Your task to perform on an android device: Show the shopping cart on newegg.com. Add "logitech g pro" to the cart on newegg.com, then select checkout. Image 0: 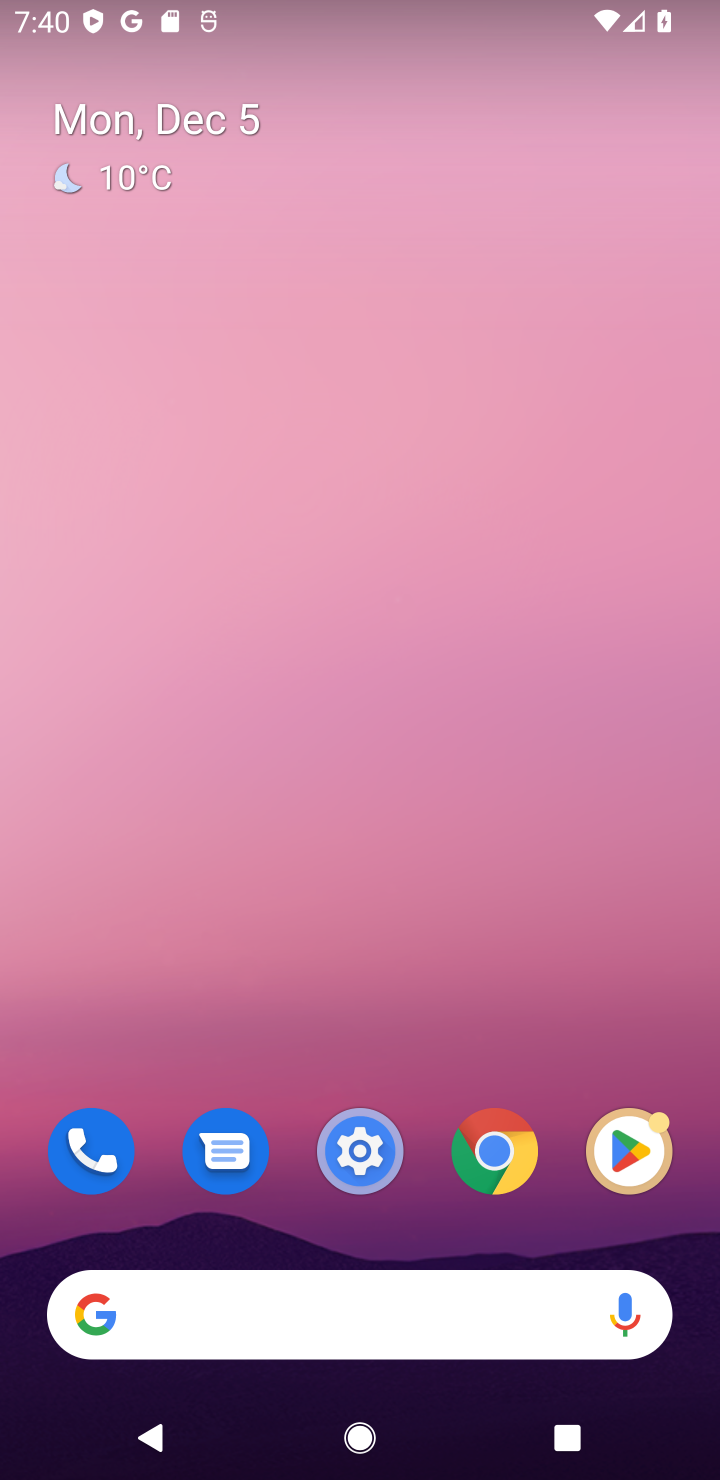
Step 0: click (409, 1311)
Your task to perform on an android device: Show the shopping cart on newegg.com. Add "logitech g pro" to the cart on newegg.com, then select checkout. Image 1: 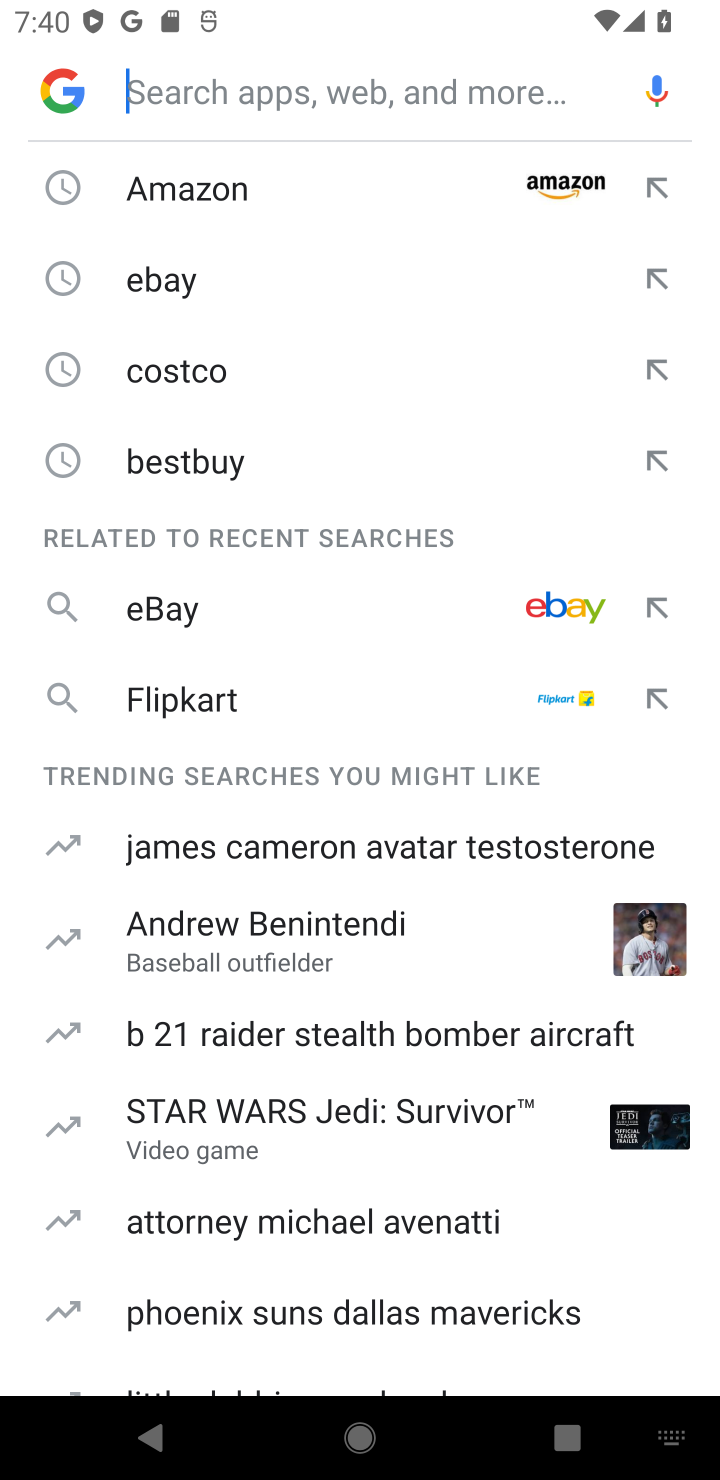
Step 1: type "newegg"
Your task to perform on an android device: Show the shopping cart on newegg.com. Add "logitech g pro" to the cart on newegg.com, then select checkout. Image 2: 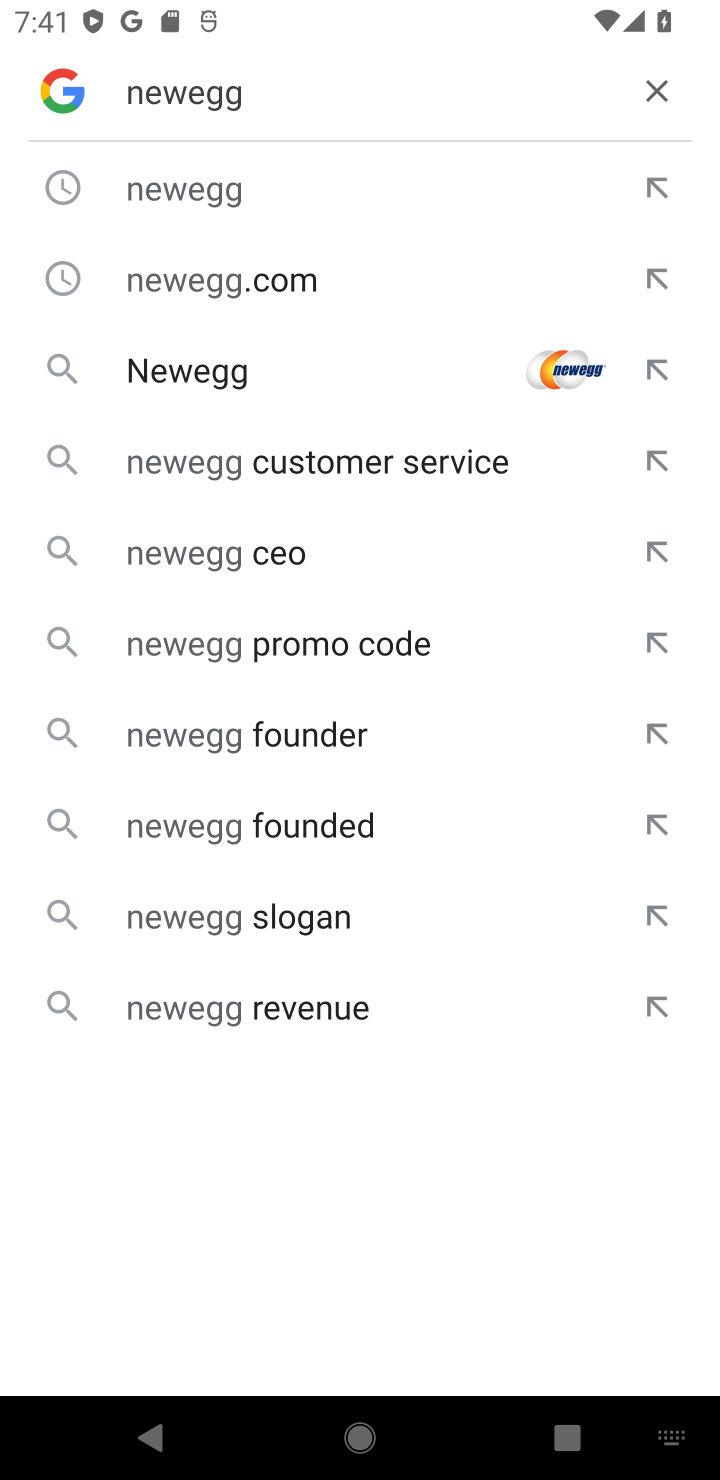
Step 2: click (236, 151)
Your task to perform on an android device: Show the shopping cart on newegg.com. Add "logitech g pro" to the cart on newegg.com, then select checkout. Image 3: 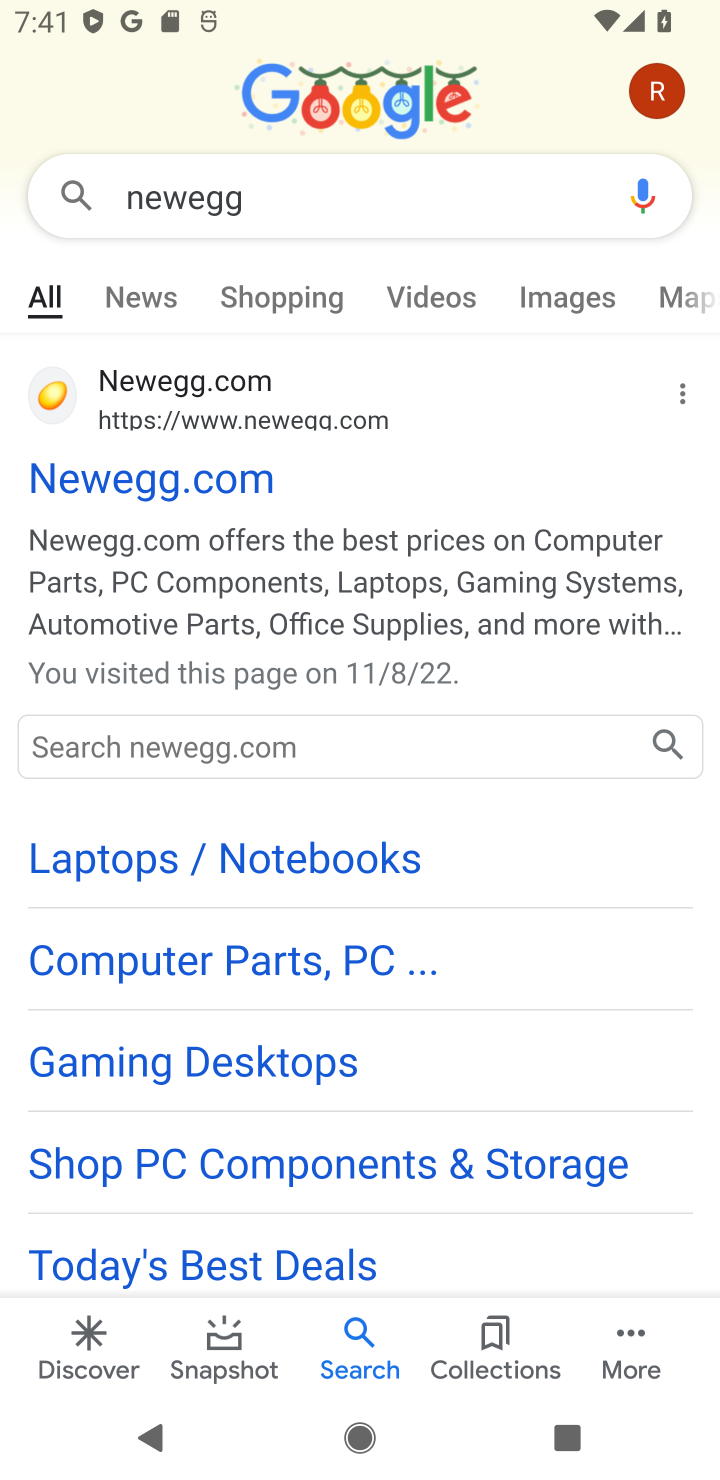
Step 3: click (124, 433)
Your task to perform on an android device: Show the shopping cart on newegg.com. Add "logitech g pro" to the cart on newegg.com, then select checkout. Image 4: 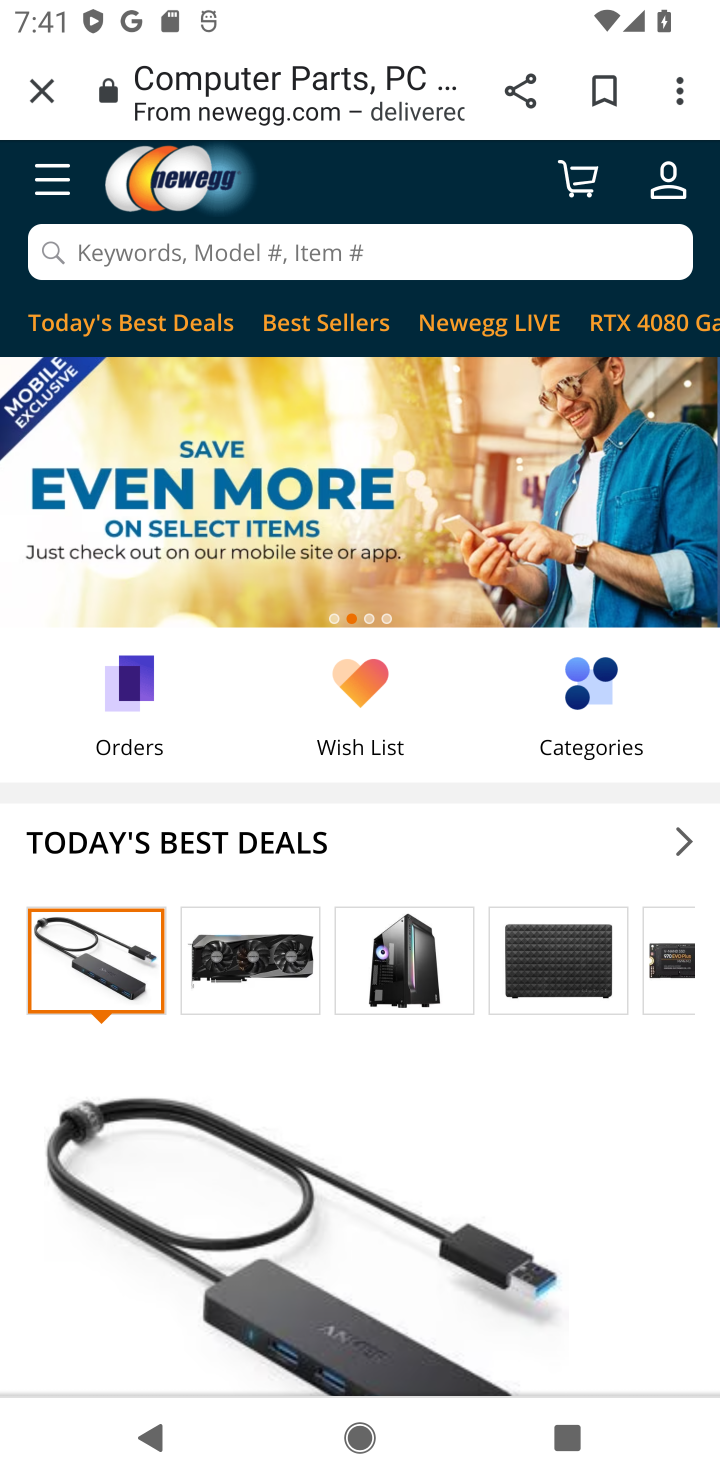
Step 4: click (124, 254)
Your task to perform on an android device: Show the shopping cart on newegg.com. Add "logitech g pro" to the cart on newegg.com, then select checkout. Image 5: 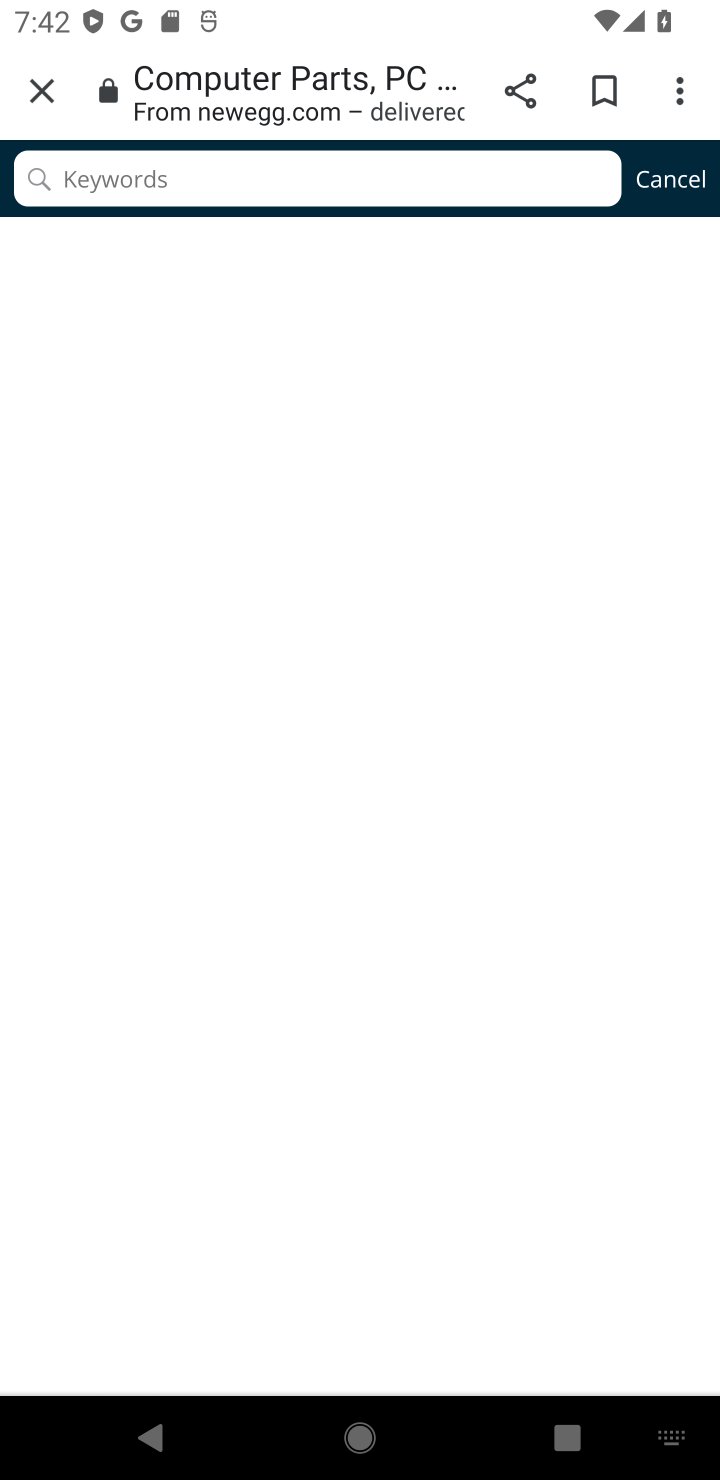
Step 5: type "logitech gpro"
Your task to perform on an android device: Show the shopping cart on newegg.com. Add "logitech g pro" to the cart on newegg.com, then select checkout. Image 6: 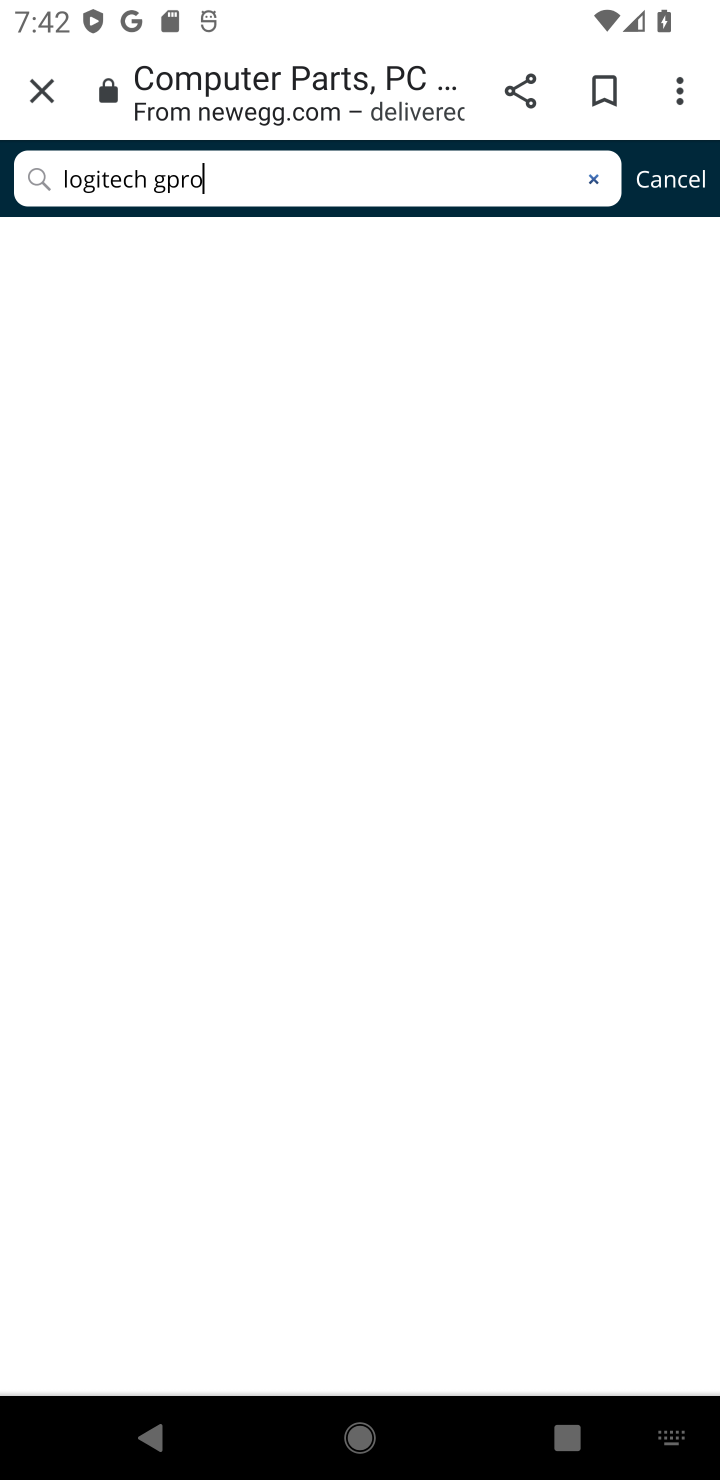
Step 6: task complete